Your task to perform on an android device: open a new tab in the chrome app Image 0: 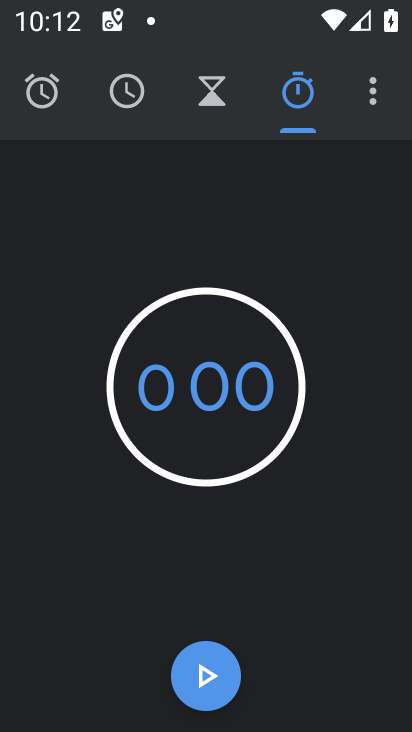
Step 0: press home button
Your task to perform on an android device: open a new tab in the chrome app Image 1: 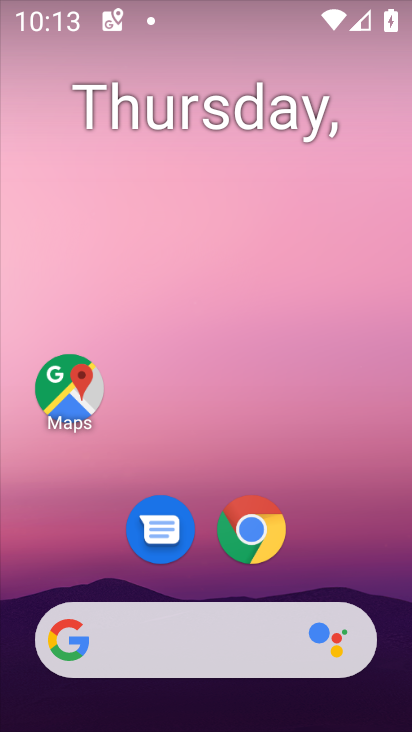
Step 1: click (223, 522)
Your task to perform on an android device: open a new tab in the chrome app Image 2: 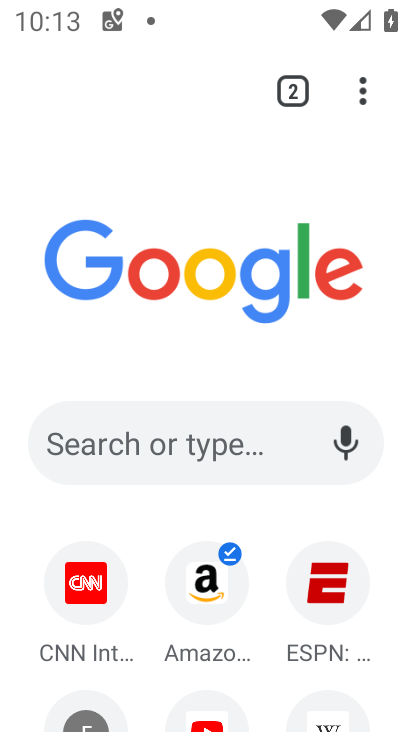
Step 2: click (360, 77)
Your task to perform on an android device: open a new tab in the chrome app Image 3: 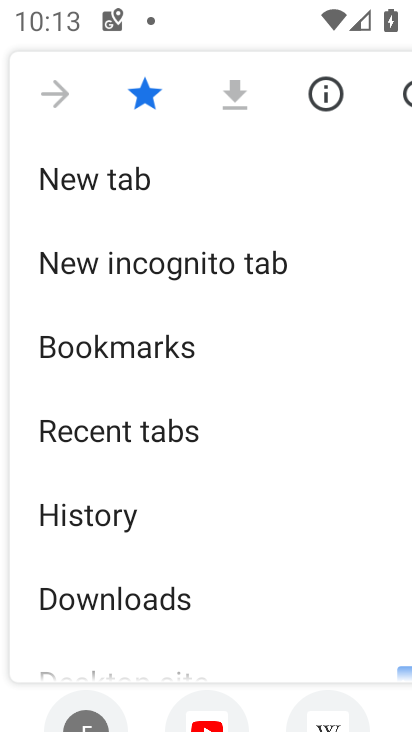
Step 3: click (166, 183)
Your task to perform on an android device: open a new tab in the chrome app Image 4: 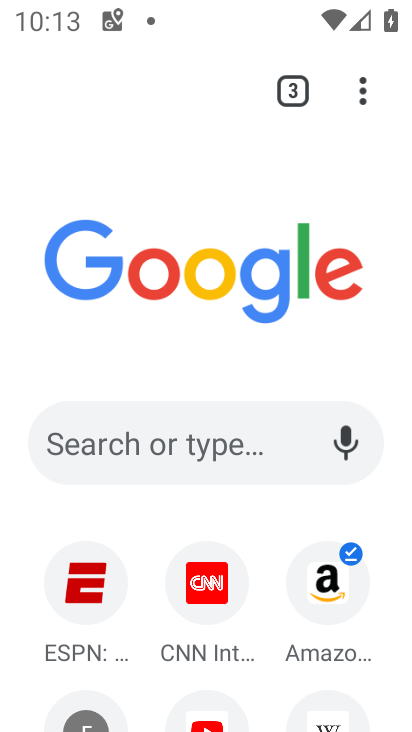
Step 4: task complete